Your task to perform on an android device: clear history in the chrome app Image 0: 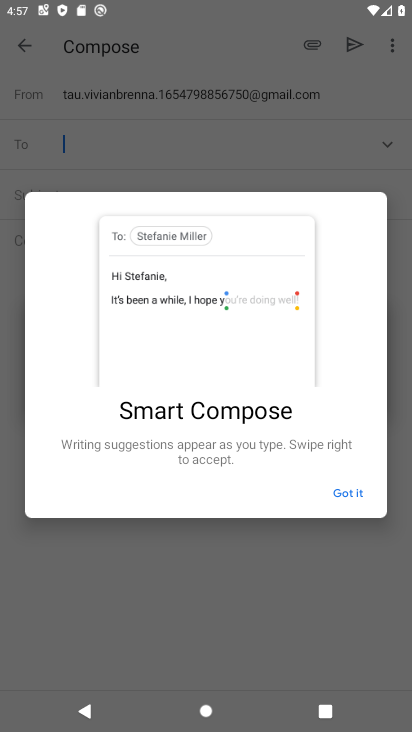
Step 0: press home button
Your task to perform on an android device: clear history in the chrome app Image 1: 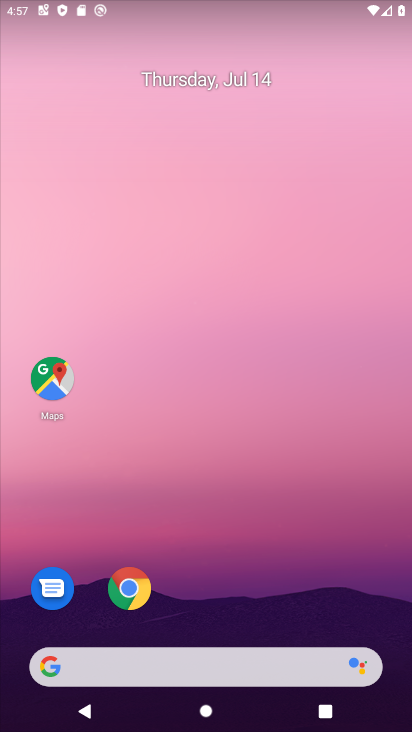
Step 1: click (127, 586)
Your task to perform on an android device: clear history in the chrome app Image 2: 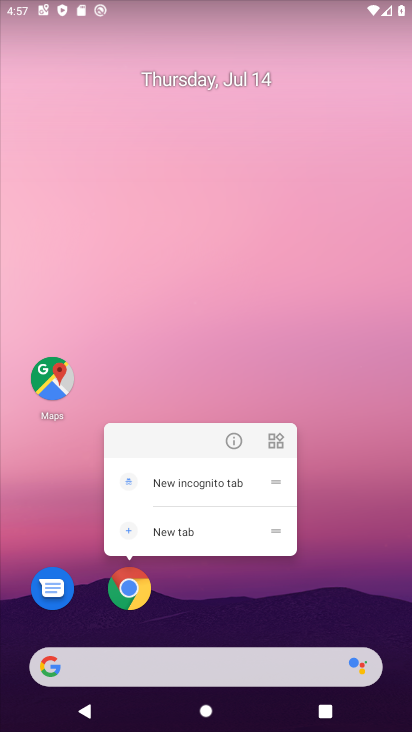
Step 2: click (126, 585)
Your task to perform on an android device: clear history in the chrome app Image 3: 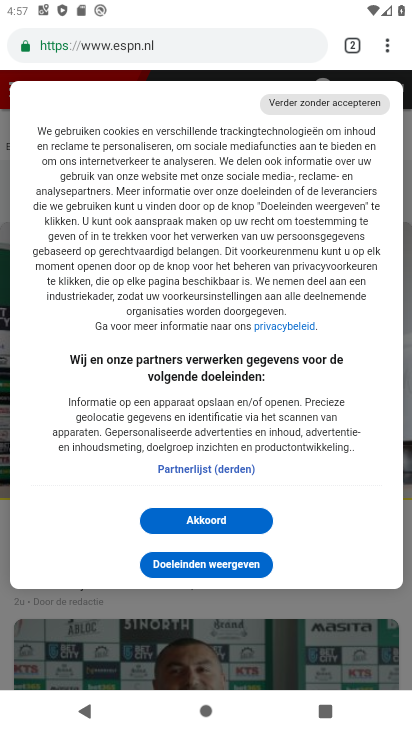
Step 3: click (390, 46)
Your task to perform on an android device: clear history in the chrome app Image 4: 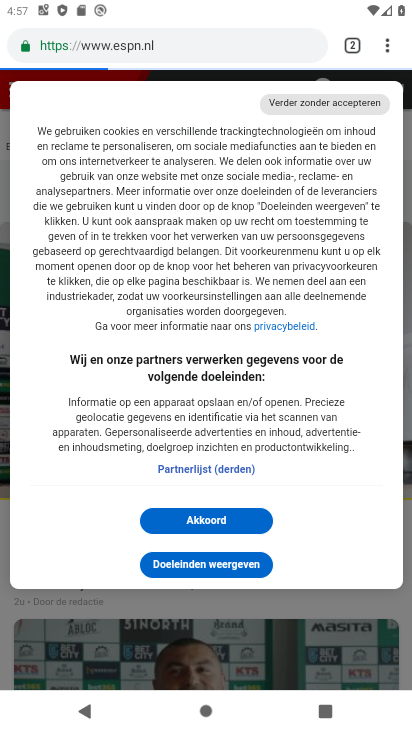
Step 4: click (390, 46)
Your task to perform on an android device: clear history in the chrome app Image 5: 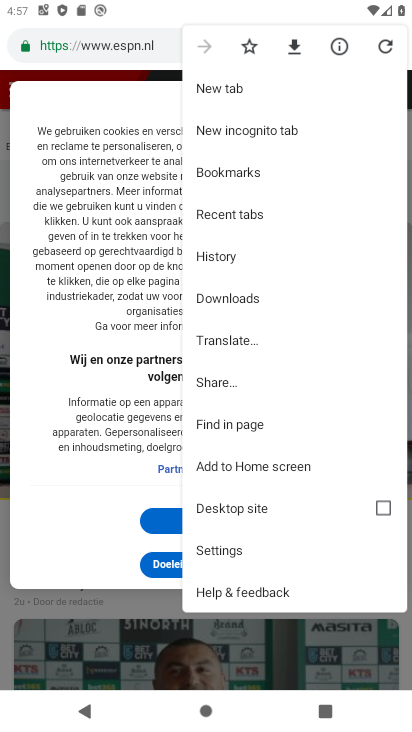
Step 5: click (226, 257)
Your task to perform on an android device: clear history in the chrome app Image 6: 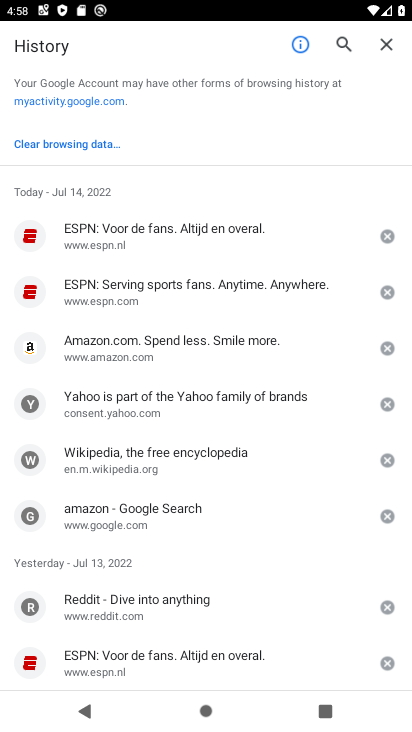
Step 6: click (95, 140)
Your task to perform on an android device: clear history in the chrome app Image 7: 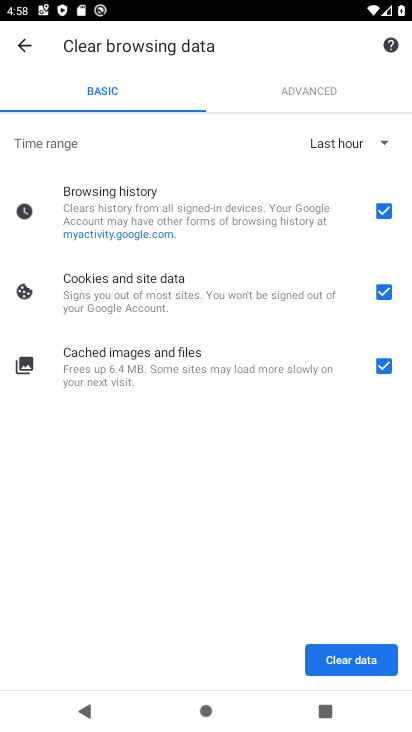
Step 7: click (319, 667)
Your task to perform on an android device: clear history in the chrome app Image 8: 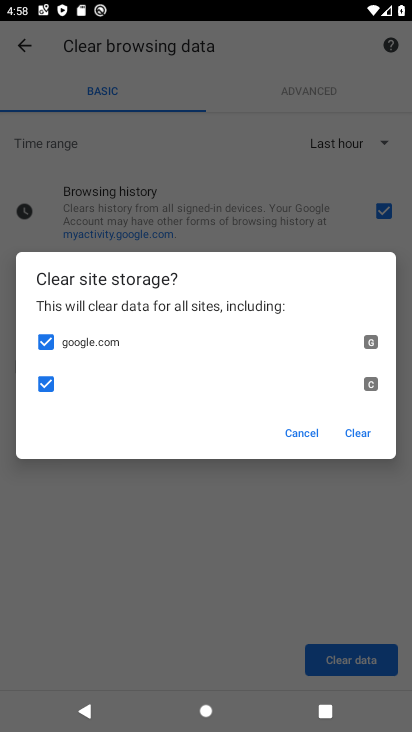
Step 8: click (345, 435)
Your task to perform on an android device: clear history in the chrome app Image 9: 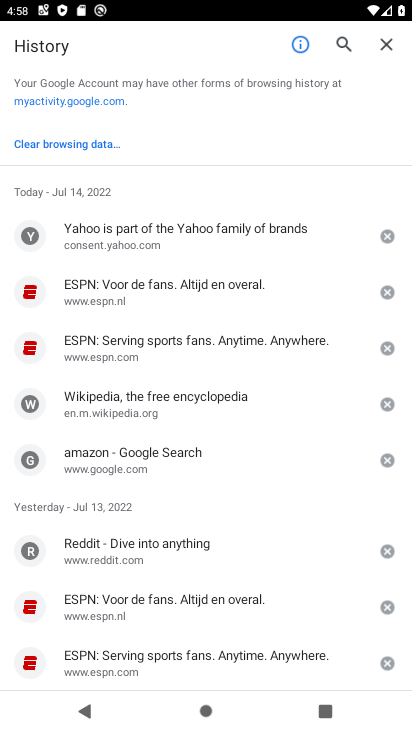
Step 9: click (51, 140)
Your task to perform on an android device: clear history in the chrome app Image 10: 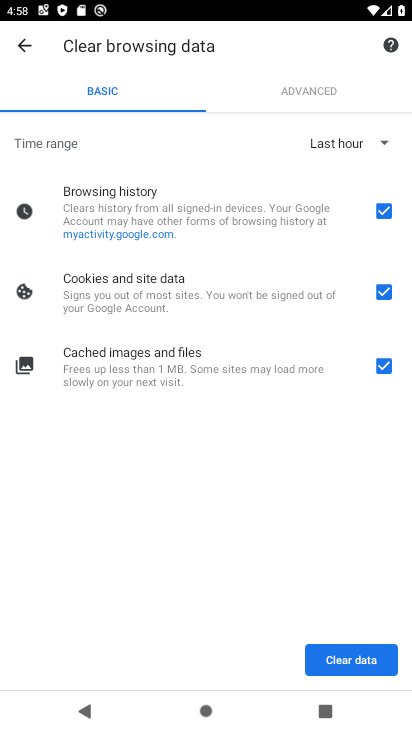
Step 10: click (379, 138)
Your task to perform on an android device: clear history in the chrome app Image 11: 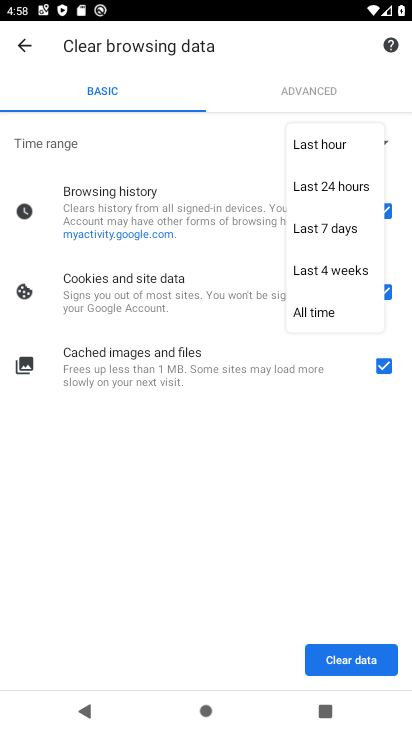
Step 11: click (309, 307)
Your task to perform on an android device: clear history in the chrome app Image 12: 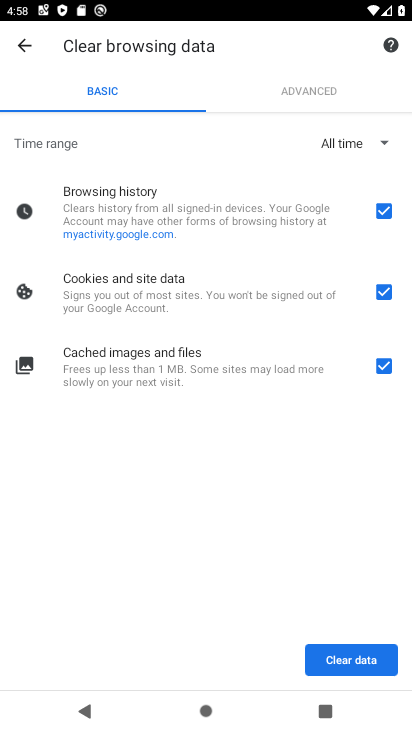
Step 12: click (340, 656)
Your task to perform on an android device: clear history in the chrome app Image 13: 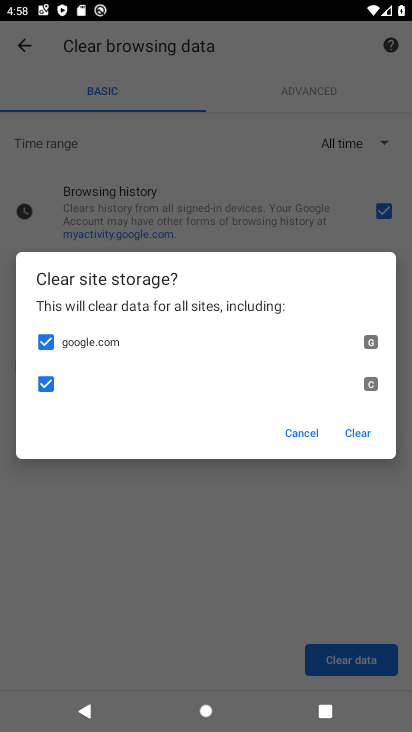
Step 13: click (351, 438)
Your task to perform on an android device: clear history in the chrome app Image 14: 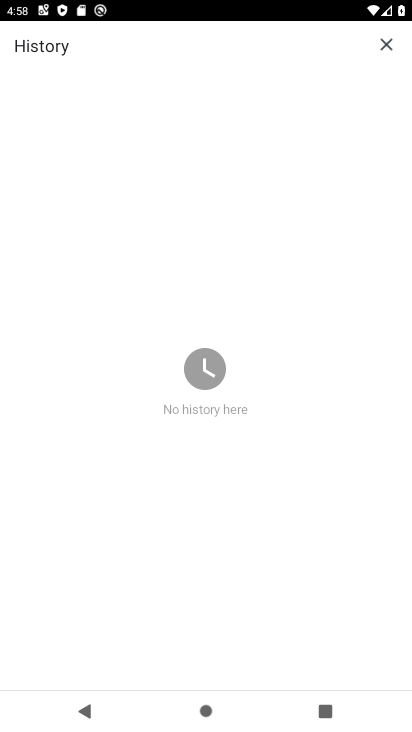
Step 14: task complete